Your task to perform on an android device: Open Reddit.com Image 0: 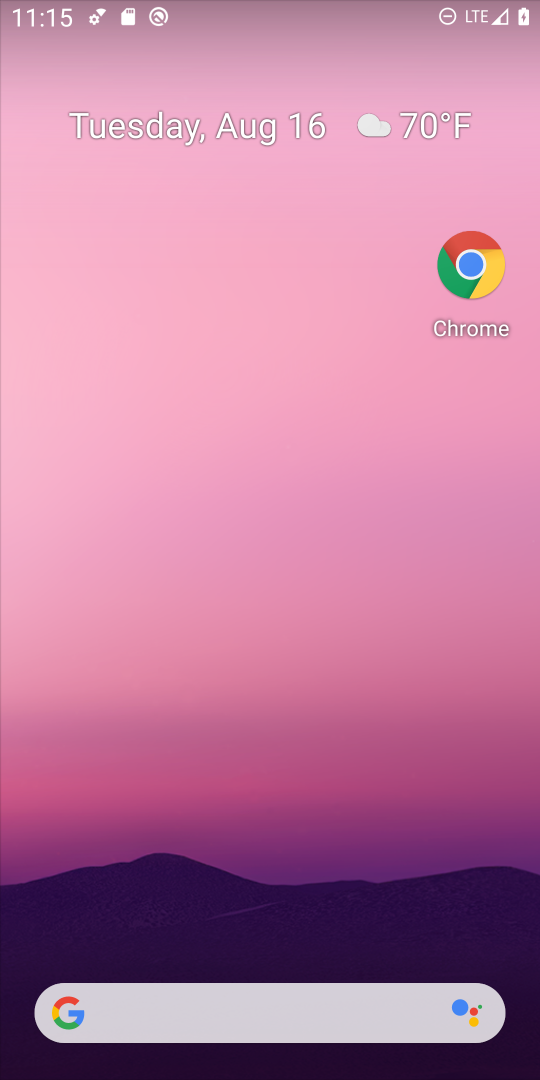
Step 0: drag from (329, 949) to (342, 0)
Your task to perform on an android device: Open Reddit.com Image 1: 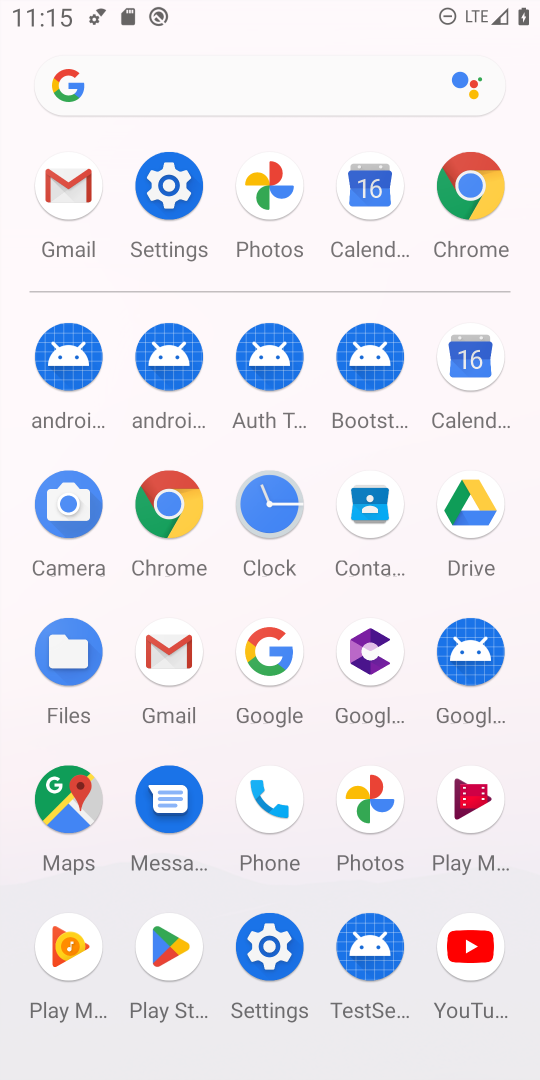
Step 1: click (484, 219)
Your task to perform on an android device: Open Reddit.com Image 2: 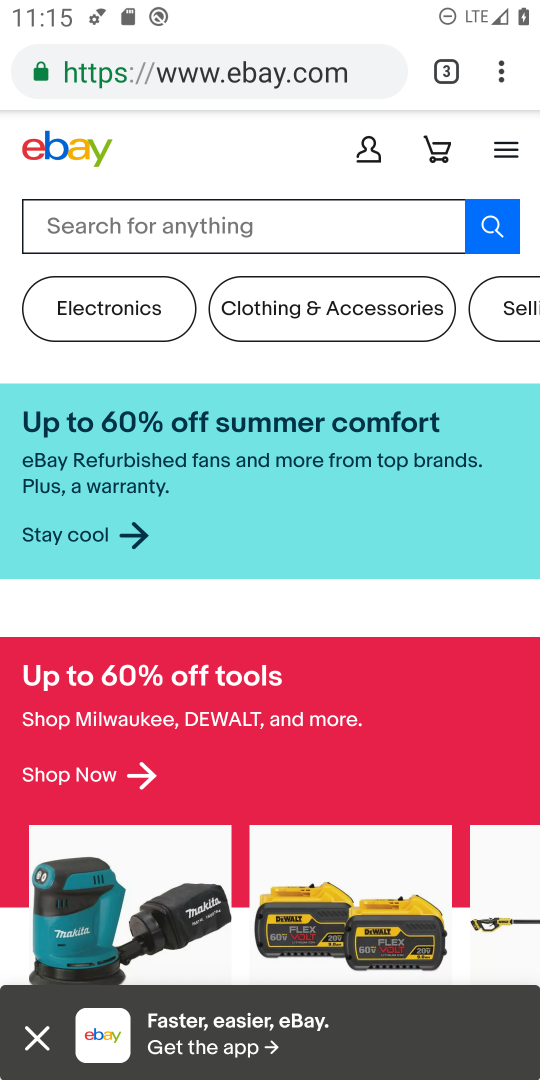
Step 2: click (242, 69)
Your task to perform on an android device: Open Reddit.com Image 3: 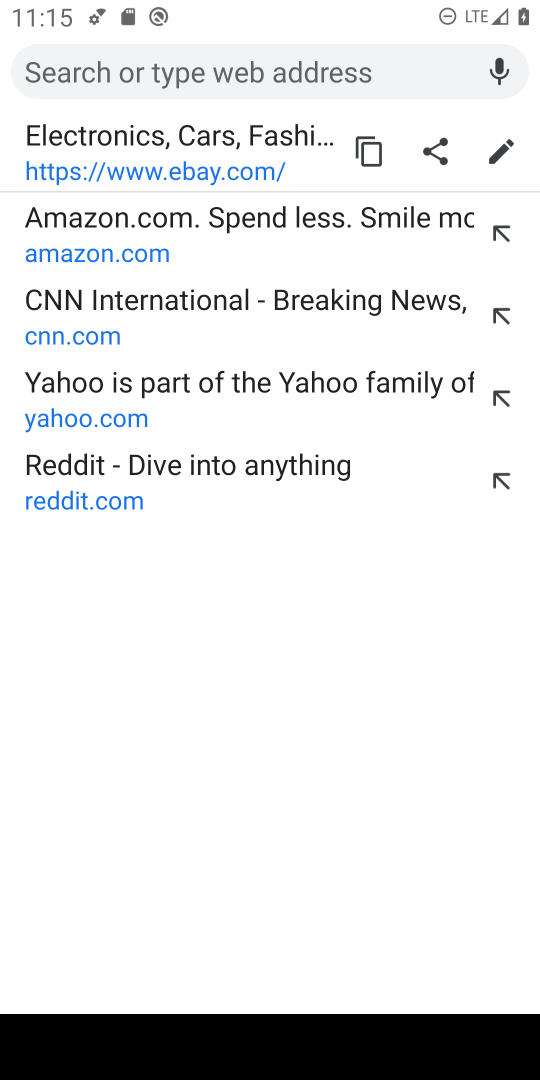
Step 3: click (165, 476)
Your task to perform on an android device: Open Reddit.com Image 4: 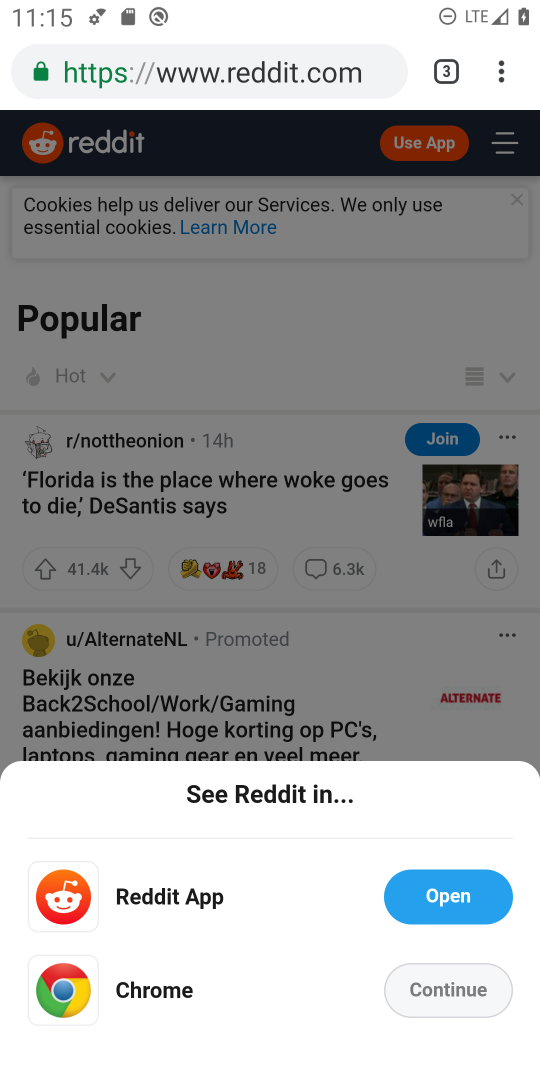
Step 4: task complete